Your task to perform on an android device: toggle data saver in the chrome app Image 0: 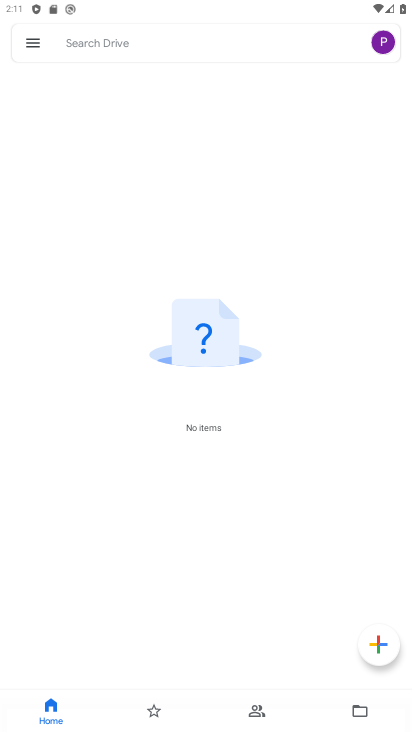
Step 0: press back button
Your task to perform on an android device: toggle data saver in the chrome app Image 1: 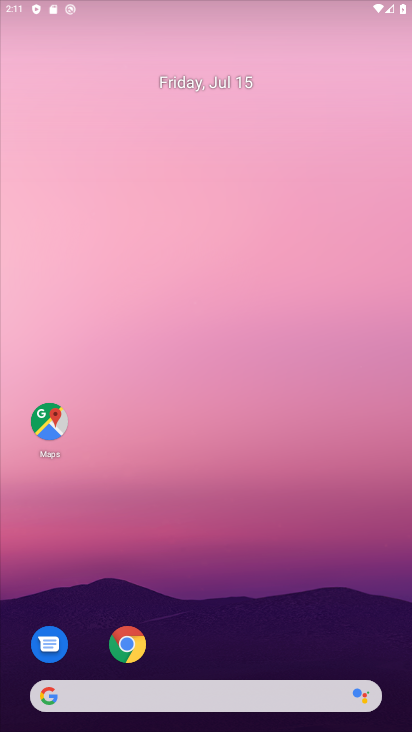
Step 1: click (119, 645)
Your task to perform on an android device: toggle data saver in the chrome app Image 2: 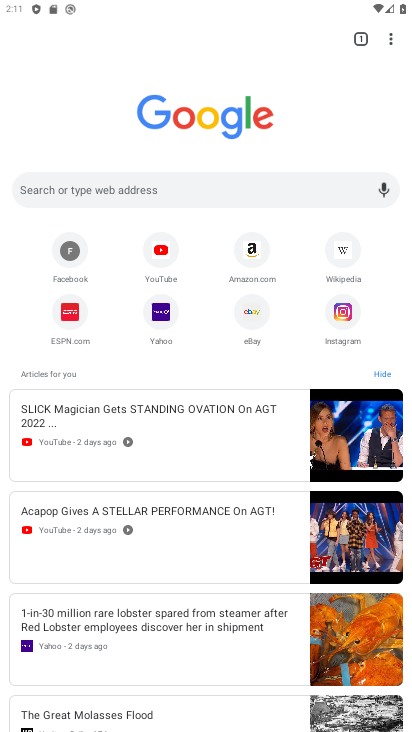
Step 2: drag from (395, 34) to (246, 326)
Your task to perform on an android device: toggle data saver in the chrome app Image 3: 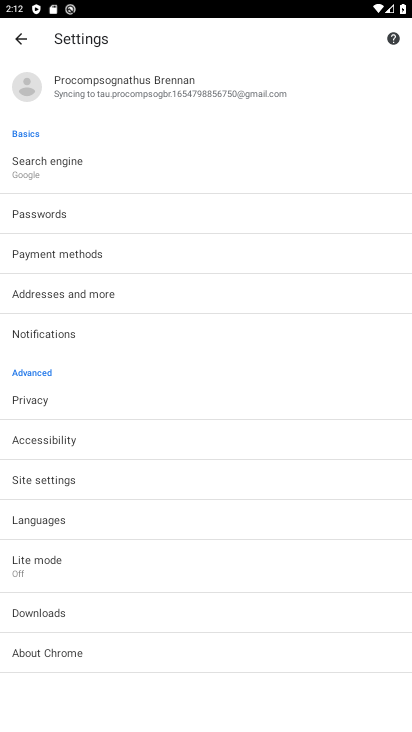
Step 3: click (63, 580)
Your task to perform on an android device: toggle data saver in the chrome app Image 4: 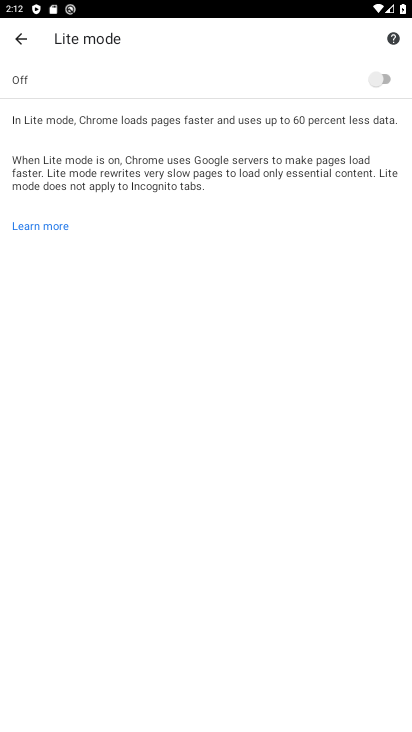
Step 4: click (380, 83)
Your task to perform on an android device: toggle data saver in the chrome app Image 5: 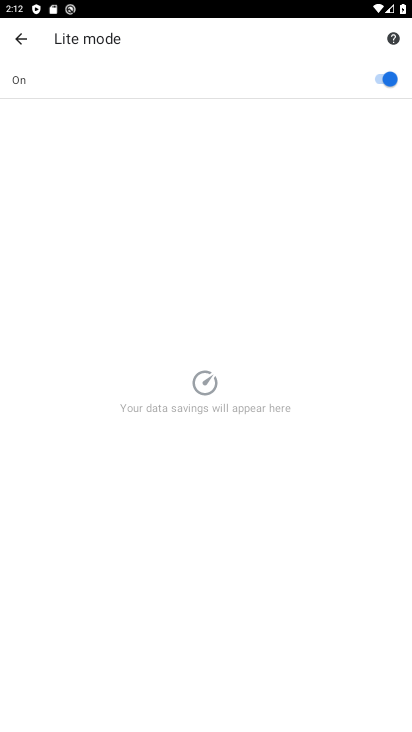
Step 5: task complete